Your task to perform on an android device: delete location history Image 0: 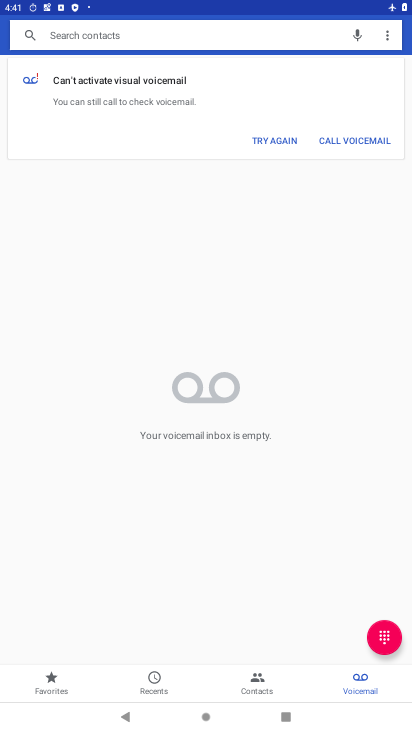
Step 0: press home button
Your task to perform on an android device: delete location history Image 1: 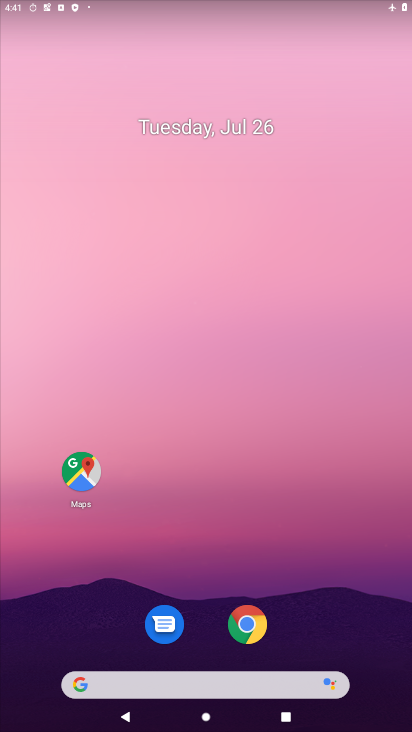
Step 1: drag from (219, 618) to (269, 45)
Your task to perform on an android device: delete location history Image 2: 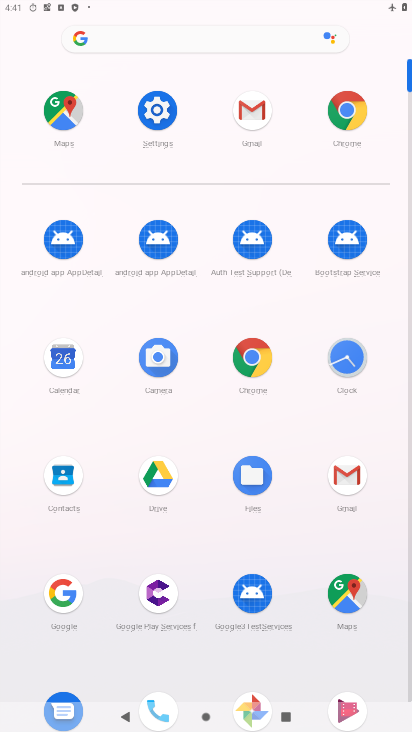
Step 2: click (161, 116)
Your task to perform on an android device: delete location history Image 3: 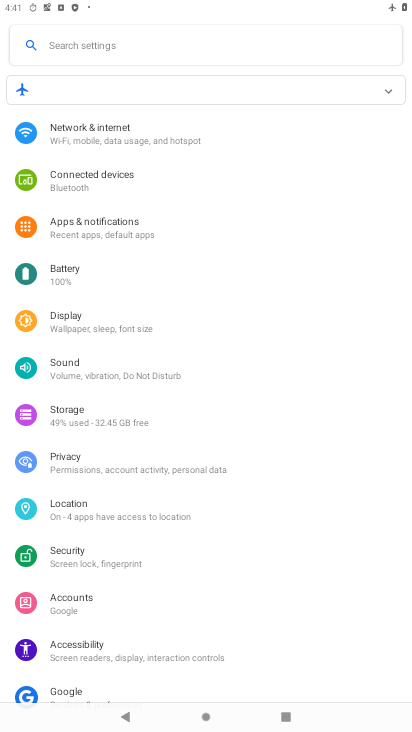
Step 3: click (88, 512)
Your task to perform on an android device: delete location history Image 4: 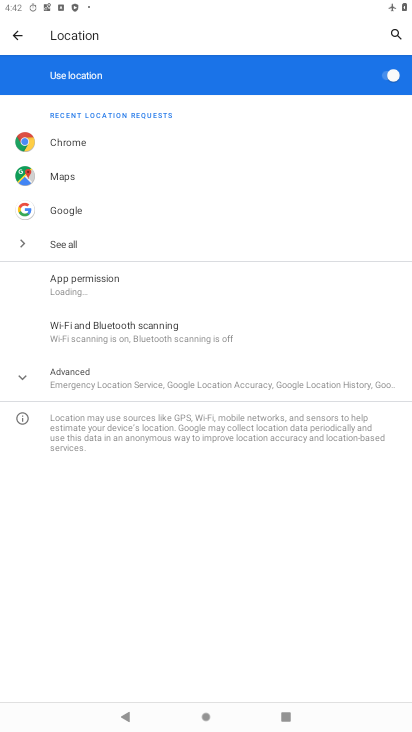
Step 4: click (140, 381)
Your task to perform on an android device: delete location history Image 5: 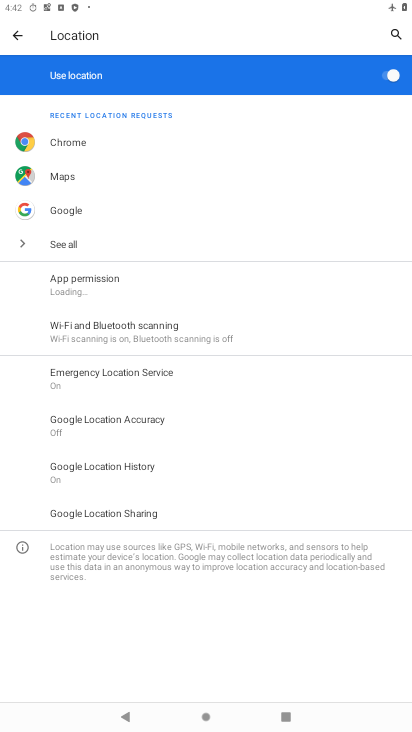
Step 5: click (141, 465)
Your task to perform on an android device: delete location history Image 6: 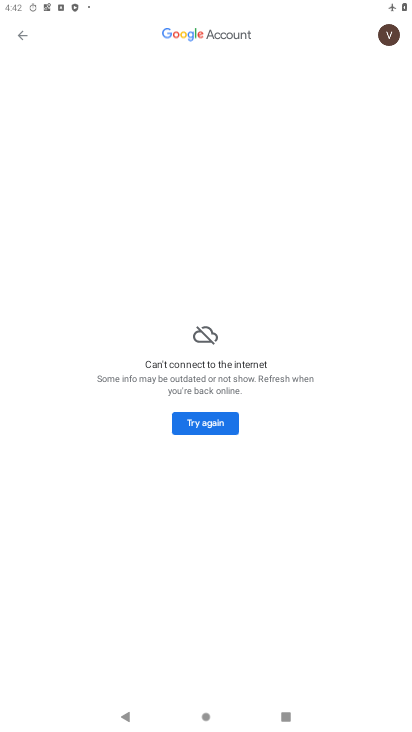
Step 6: click (217, 421)
Your task to perform on an android device: delete location history Image 7: 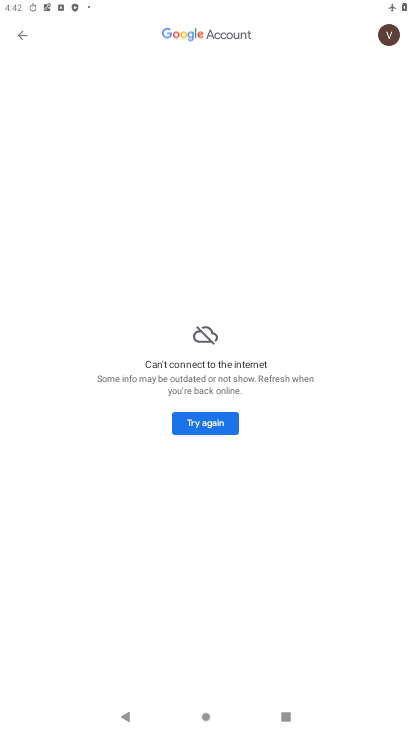
Step 7: click (189, 428)
Your task to perform on an android device: delete location history Image 8: 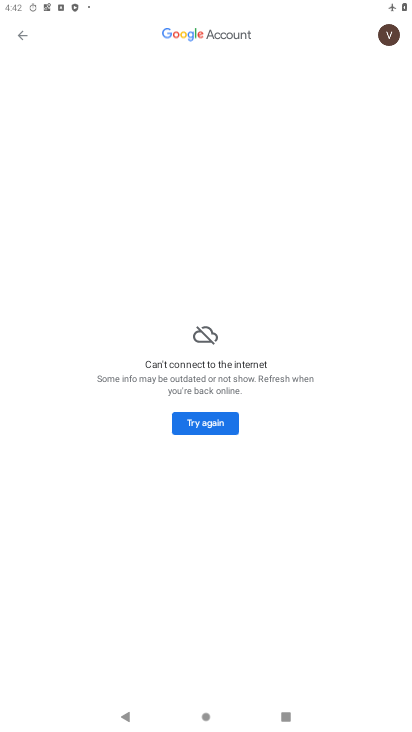
Step 8: click (189, 428)
Your task to perform on an android device: delete location history Image 9: 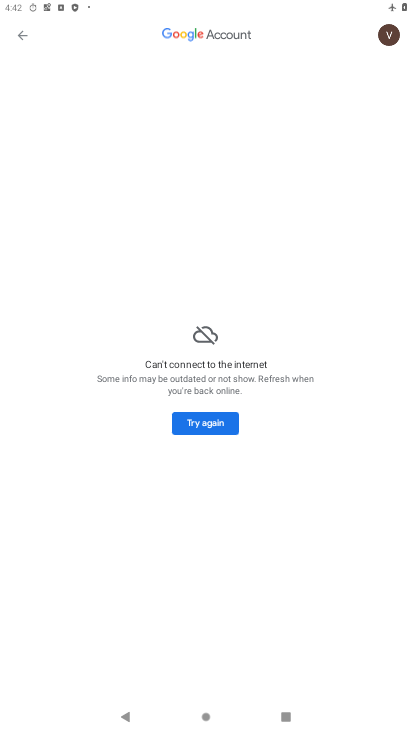
Step 9: task complete